Your task to perform on an android device: turn notification dots off Image 0: 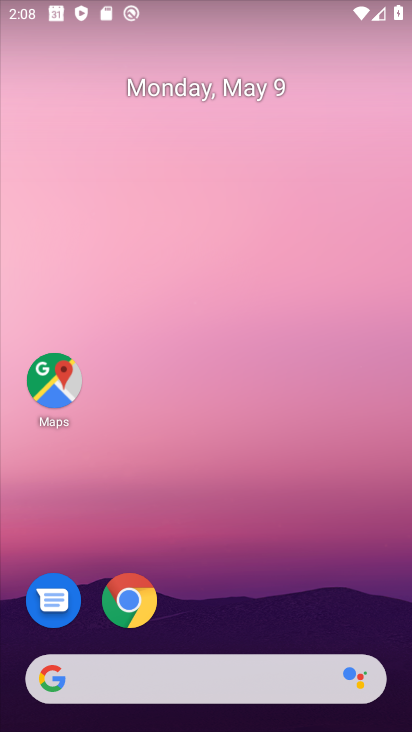
Step 0: drag from (271, 558) to (263, 1)
Your task to perform on an android device: turn notification dots off Image 1: 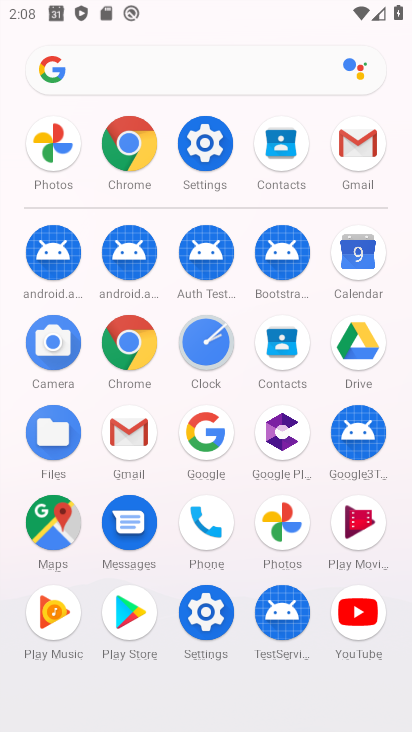
Step 1: drag from (10, 550) to (7, 250)
Your task to perform on an android device: turn notification dots off Image 2: 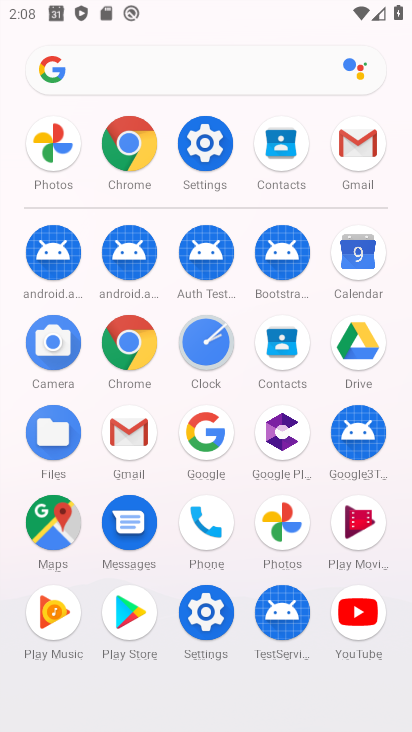
Step 2: click (208, 139)
Your task to perform on an android device: turn notification dots off Image 3: 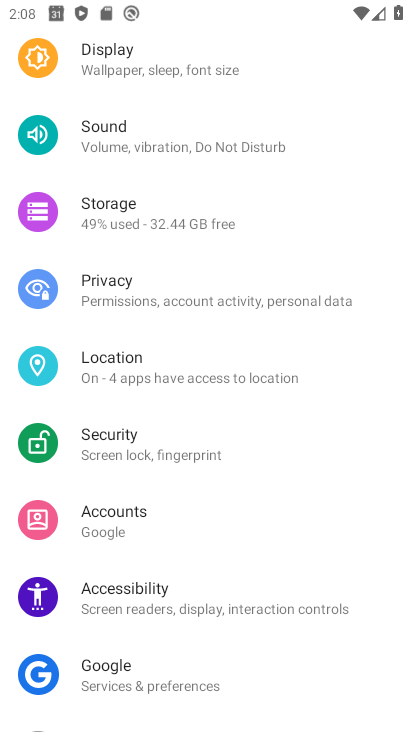
Step 3: drag from (343, 605) to (335, 154)
Your task to perform on an android device: turn notification dots off Image 4: 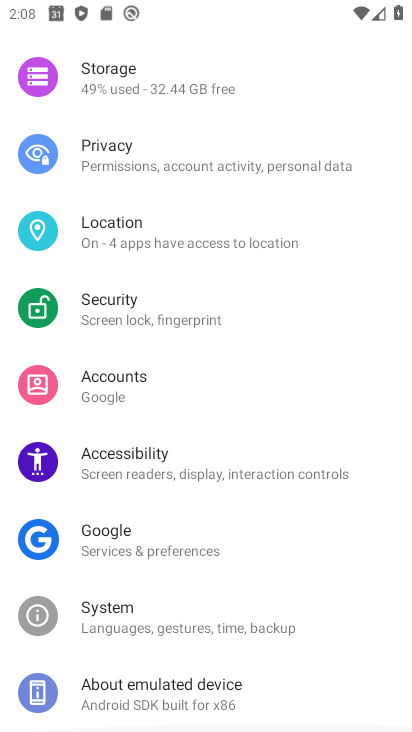
Step 4: drag from (303, 164) to (245, 642)
Your task to perform on an android device: turn notification dots off Image 5: 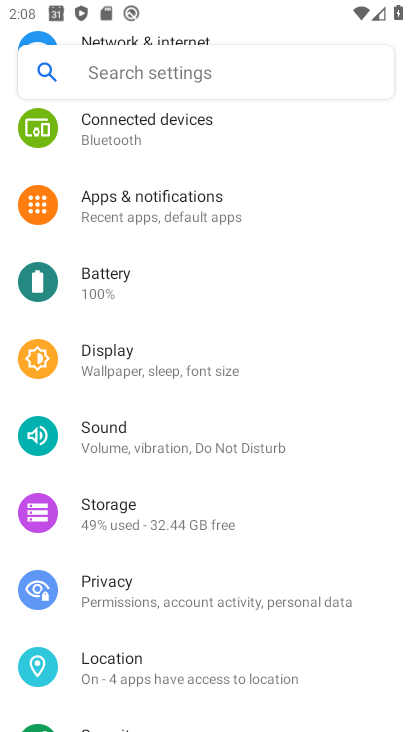
Step 5: click (195, 199)
Your task to perform on an android device: turn notification dots off Image 6: 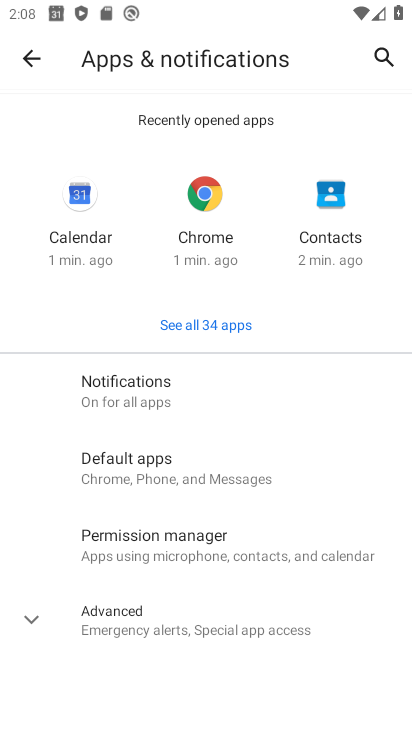
Step 6: click (34, 620)
Your task to perform on an android device: turn notification dots off Image 7: 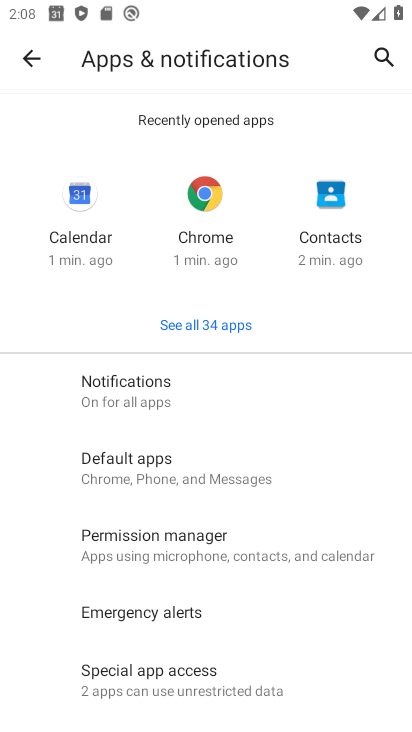
Step 7: click (215, 404)
Your task to perform on an android device: turn notification dots off Image 8: 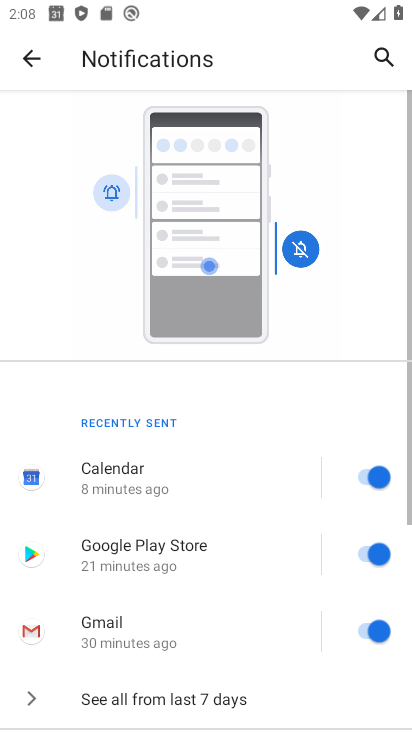
Step 8: drag from (278, 619) to (260, 170)
Your task to perform on an android device: turn notification dots off Image 9: 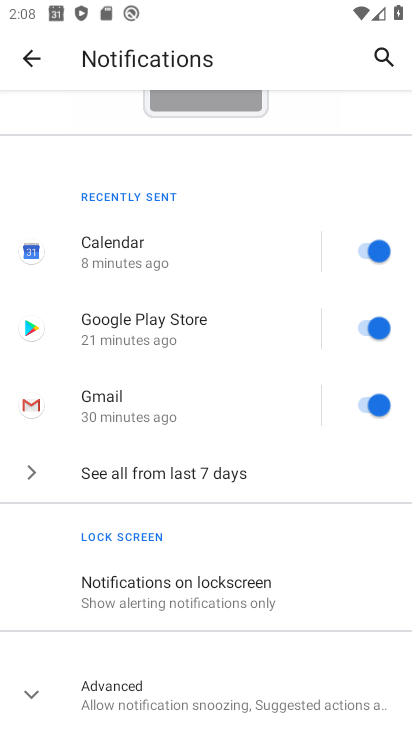
Step 9: click (57, 693)
Your task to perform on an android device: turn notification dots off Image 10: 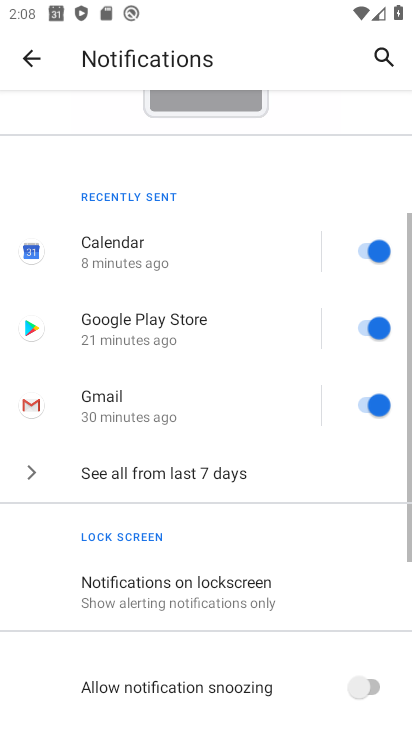
Step 10: task complete